Your task to perform on an android device: allow cookies in the chrome app Image 0: 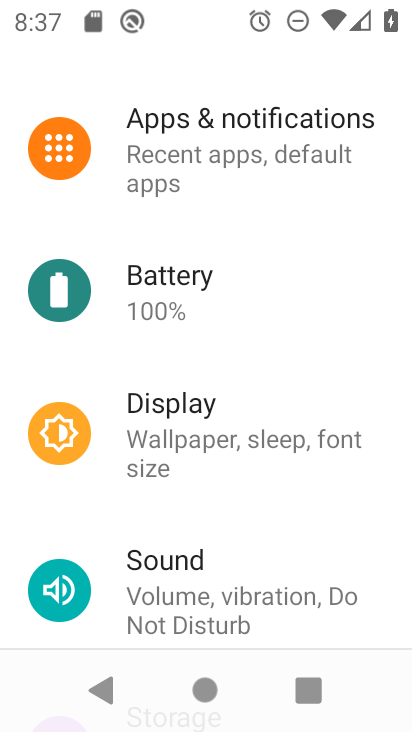
Step 0: press home button
Your task to perform on an android device: allow cookies in the chrome app Image 1: 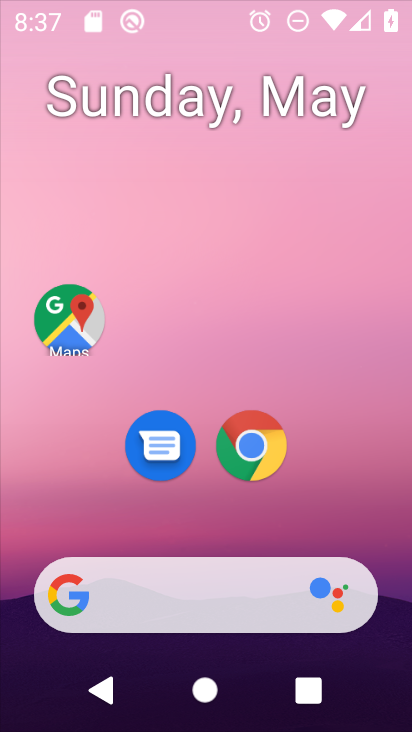
Step 1: drag from (234, 513) to (292, 98)
Your task to perform on an android device: allow cookies in the chrome app Image 2: 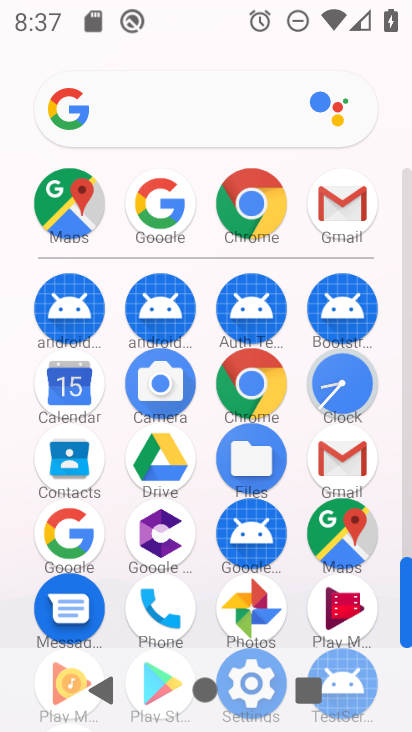
Step 2: click (266, 404)
Your task to perform on an android device: allow cookies in the chrome app Image 3: 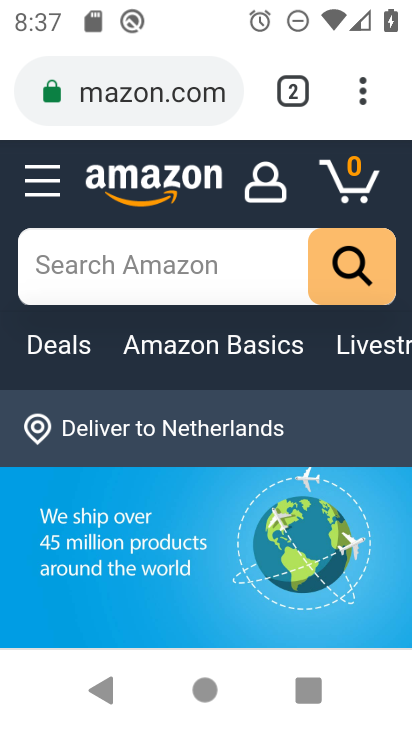
Step 3: click (364, 83)
Your task to perform on an android device: allow cookies in the chrome app Image 4: 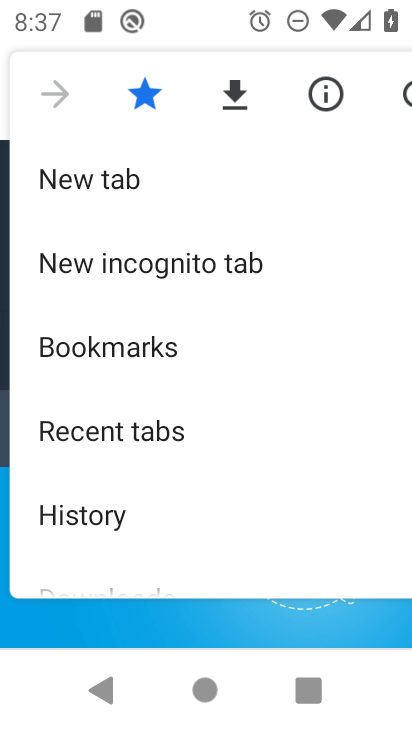
Step 4: drag from (226, 467) to (308, 2)
Your task to perform on an android device: allow cookies in the chrome app Image 5: 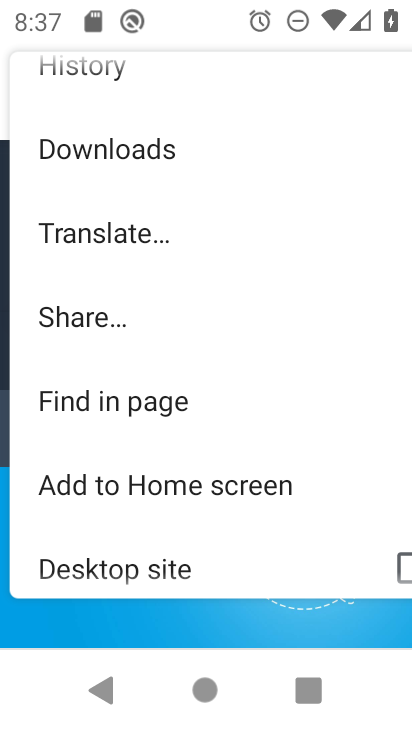
Step 5: drag from (191, 488) to (269, 98)
Your task to perform on an android device: allow cookies in the chrome app Image 6: 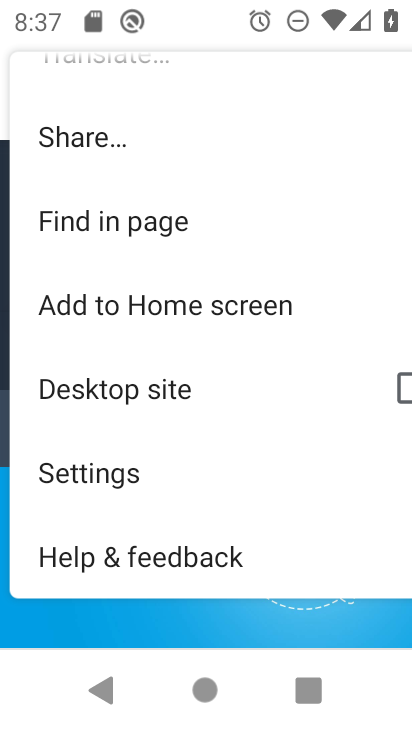
Step 6: click (107, 483)
Your task to perform on an android device: allow cookies in the chrome app Image 7: 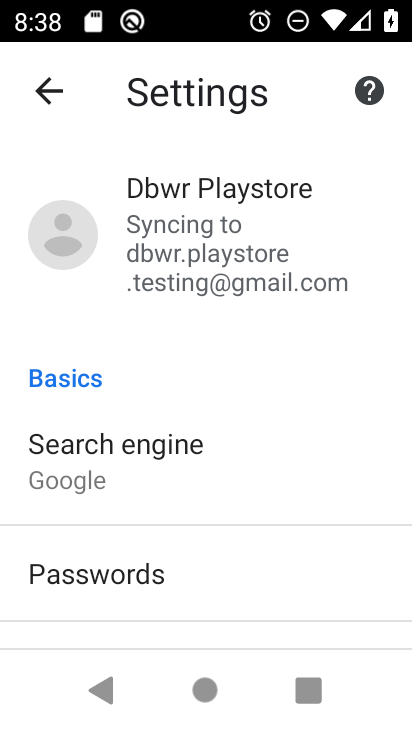
Step 7: drag from (243, 600) to (322, 220)
Your task to perform on an android device: allow cookies in the chrome app Image 8: 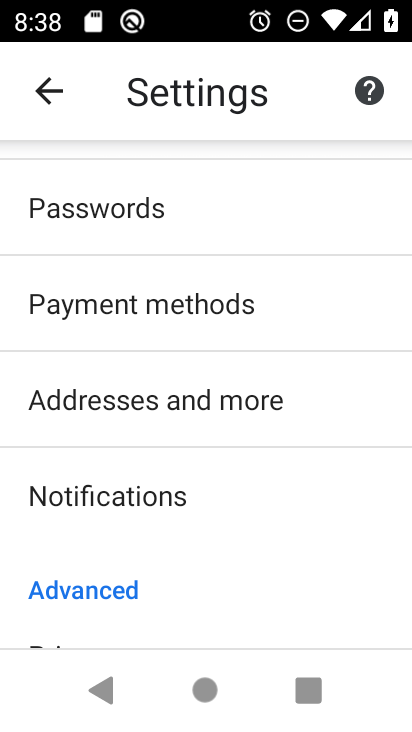
Step 8: drag from (247, 313) to (228, 620)
Your task to perform on an android device: allow cookies in the chrome app Image 9: 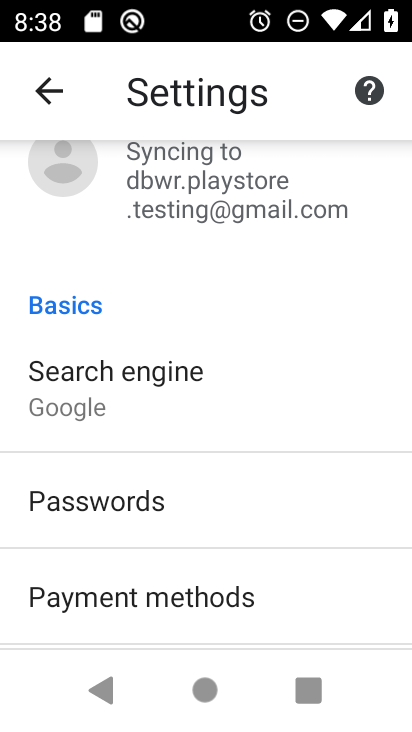
Step 9: drag from (241, 554) to (341, 154)
Your task to perform on an android device: allow cookies in the chrome app Image 10: 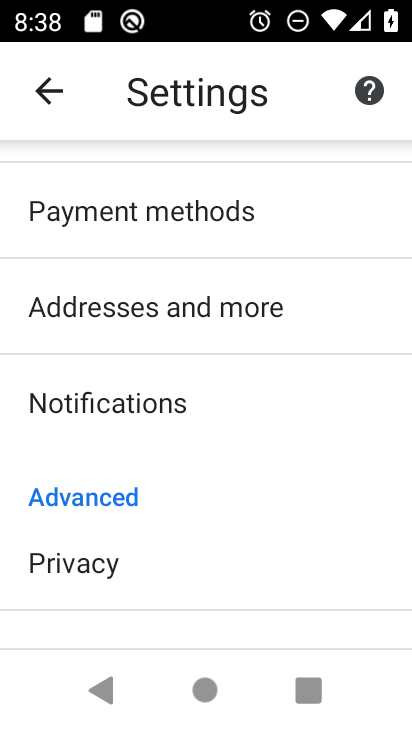
Step 10: drag from (288, 459) to (336, 153)
Your task to perform on an android device: allow cookies in the chrome app Image 11: 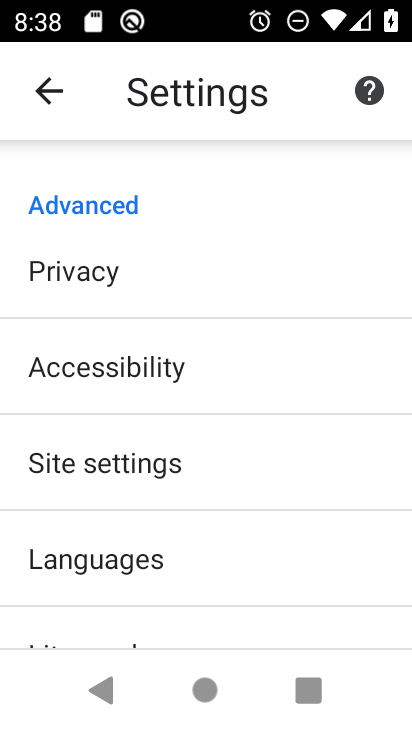
Step 11: drag from (283, 474) to (315, 314)
Your task to perform on an android device: allow cookies in the chrome app Image 12: 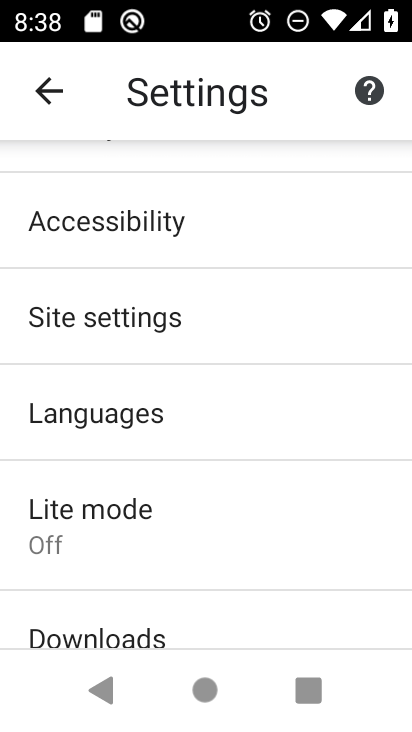
Step 12: click (152, 318)
Your task to perform on an android device: allow cookies in the chrome app Image 13: 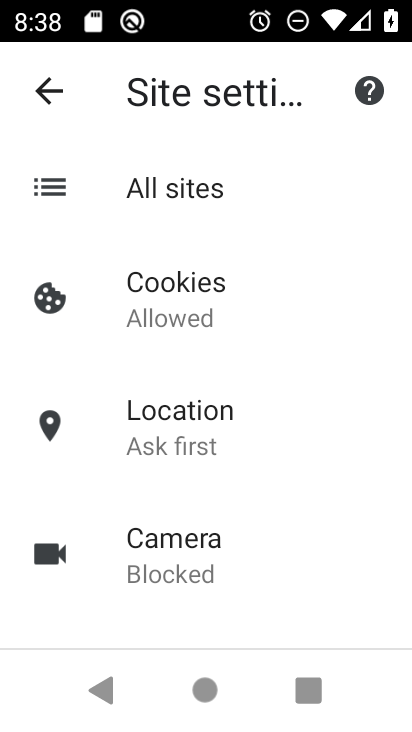
Step 13: drag from (178, 506) to (219, 247)
Your task to perform on an android device: allow cookies in the chrome app Image 14: 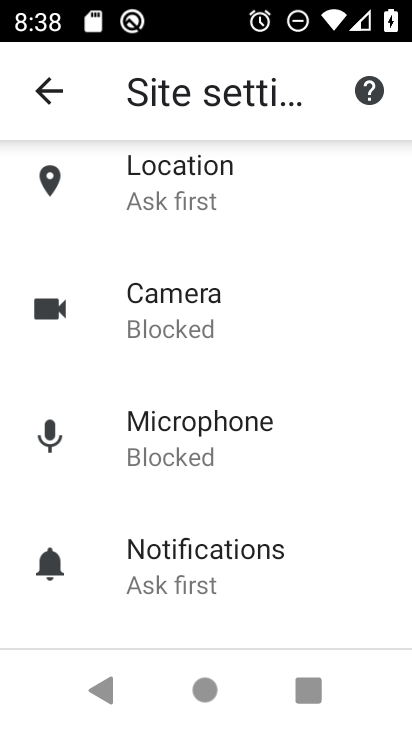
Step 14: drag from (246, 512) to (300, 240)
Your task to perform on an android device: allow cookies in the chrome app Image 15: 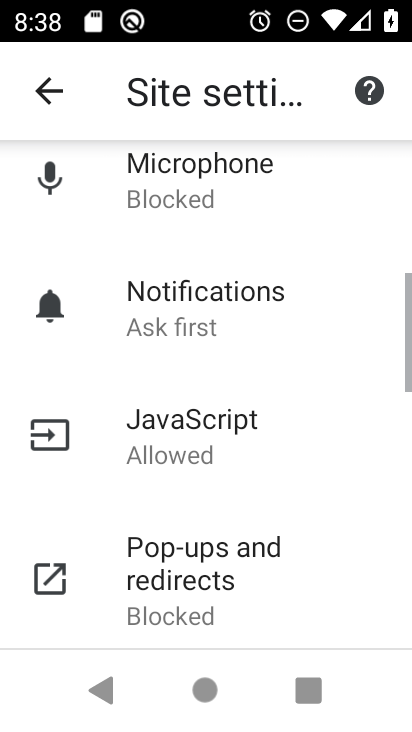
Step 15: drag from (293, 280) to (288, 729)
Your task to perform on an android device: allow cookies in the chrome app Image 16: 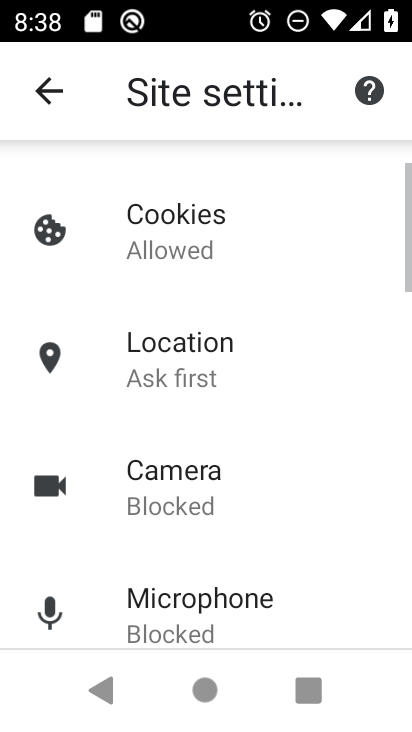
Step 16: drag from (287, 305) to (270, 633)
Your task to perform on an android device: allow cookies in the chrome app Image 17: 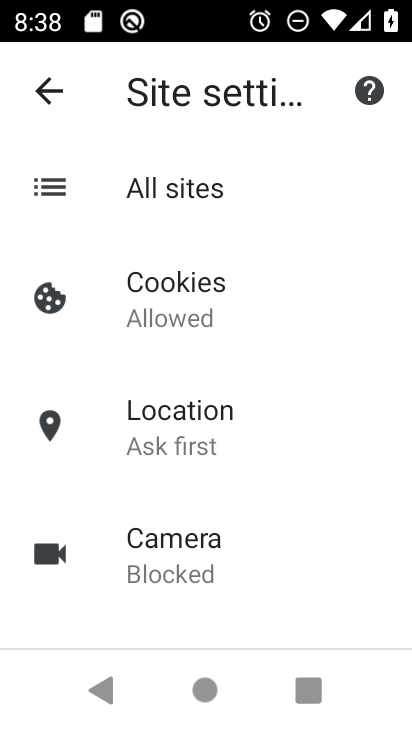
Step 17: click (249, 288)
Your task to perform on an android device: allow cookies in the chrome app Image 18: 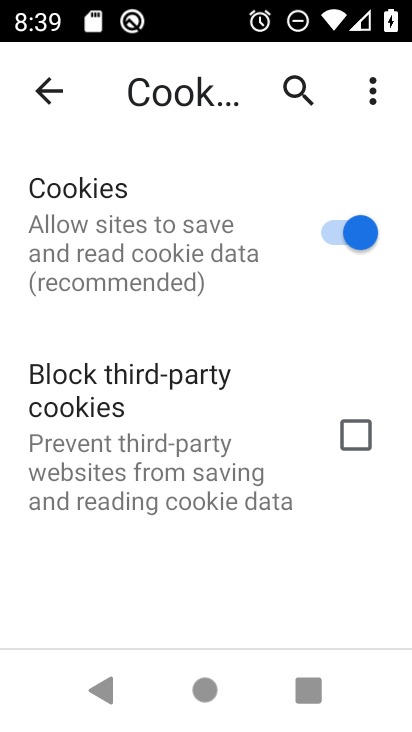
Step 18: task complete